Your task to perform on an android device: turn on notifications settings in the gmail app Image 0: 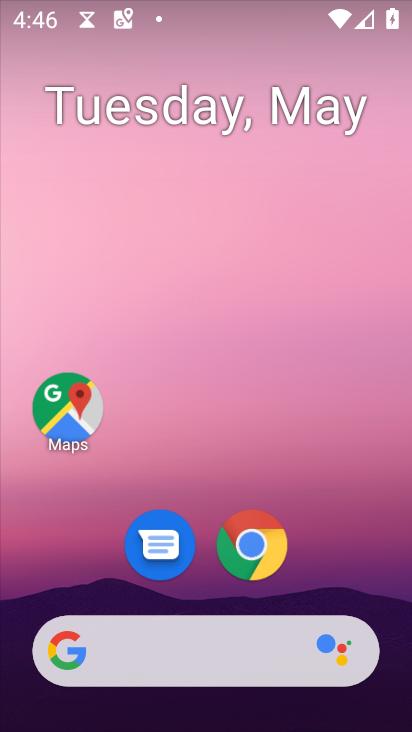
Step 0: drag from (324, 560) to (326, 122)
Your task to perform on an android device: turn on notifications settings in the gmail app Image 1: 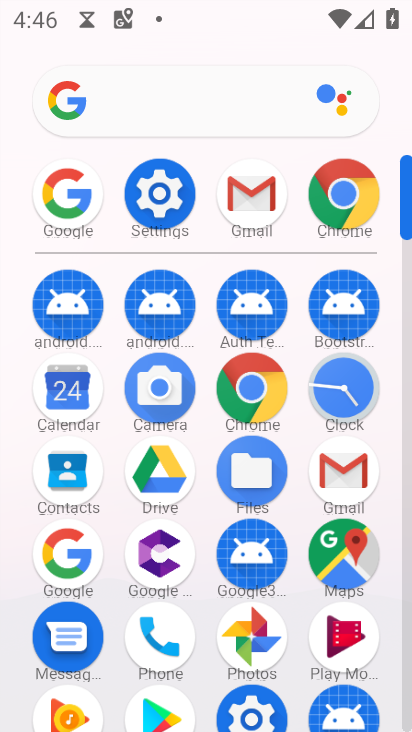
Step 1: click (251, 196)
Your task to perform on an android device: turn on notifications settings in the gmail app Image 2: 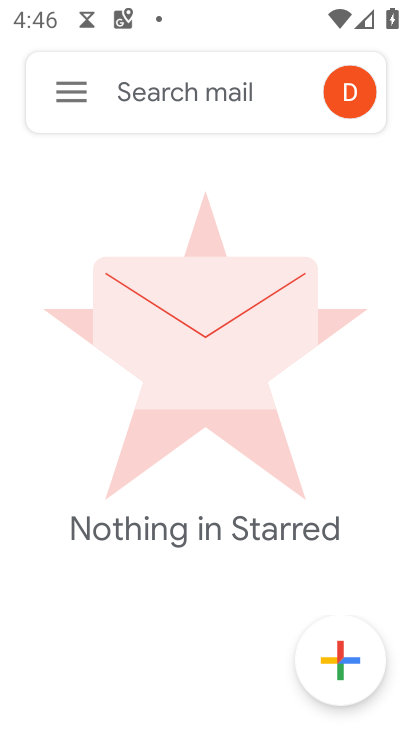
Step 2: click (73, 90)
Your task to perform on an android device: turn on notifications settings in the gmail app Image 3: 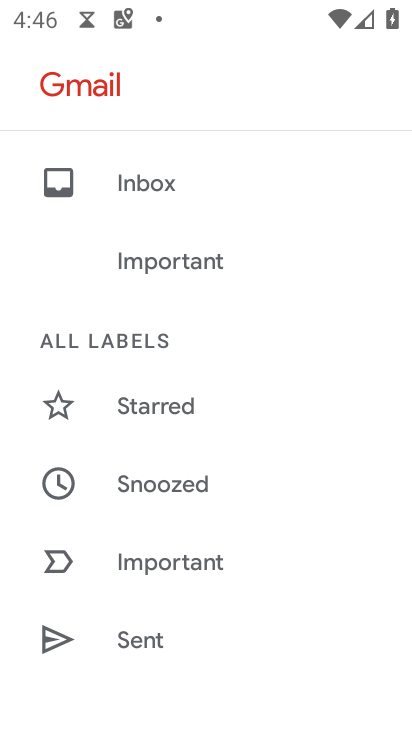
Step 3: drag from (169, 600) to (231, 448)
Your task to perform on an android device: turn on notifications settings in the gmail app Image 4: 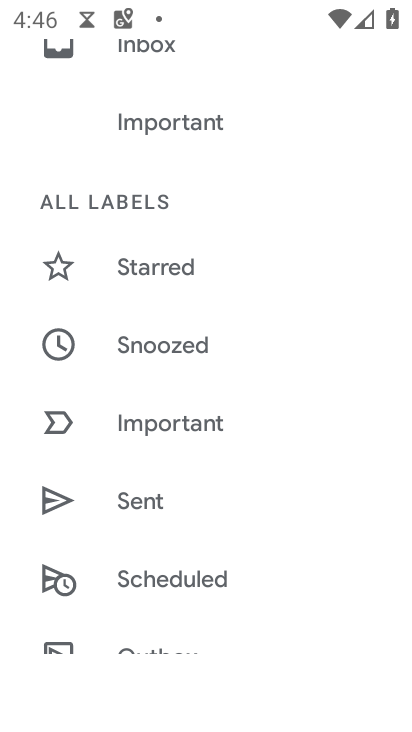
Step 4: drag from (140, 562) to (185, 445)
Your task to perform on an android device: turn on notifications settings in the gmail app Image 5: 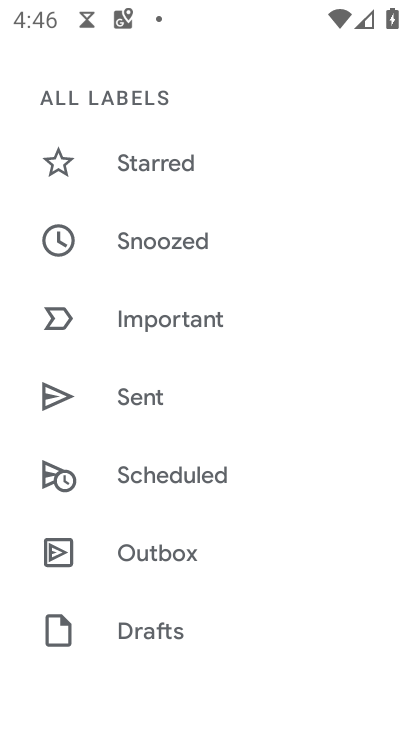
Step 5: drag from (155, 507) to (199, 406)
Your task to perform on an android device: turn on notifications settings in the gmail app Image 6: 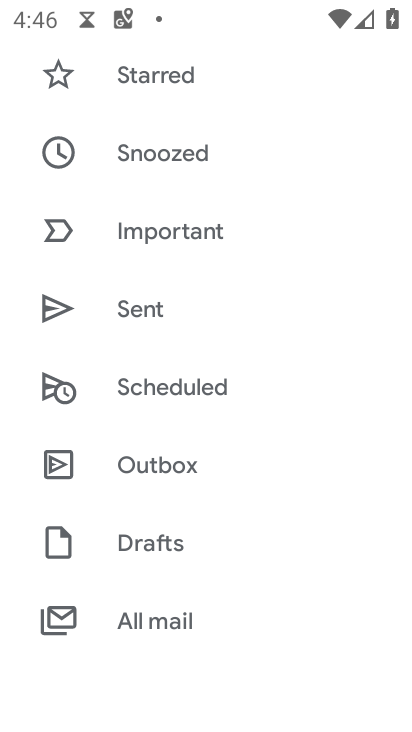
Step 6: drag from (135, 514) to (205, 408)
Your task to perform on an android device: turn on notifications settings in the gmail app Image 7: 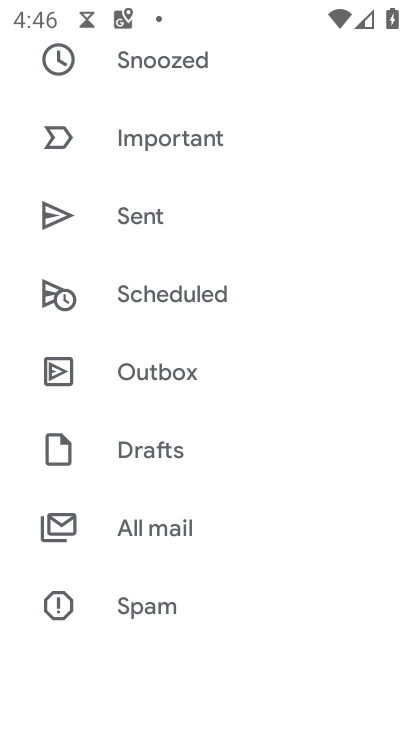
Step 7: drag from (135, 505) to (220, 393)
Your task to perform on an android device: turn on notifications settings in the gmail app Image 8: 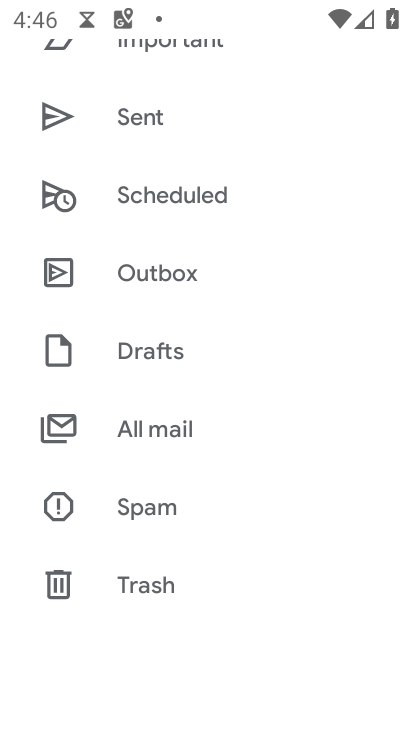
Step 8: drag from (140, 556) to (230, 420)
Your task to perform on an android device: turn on notifications settings in the gmail app Image 9: 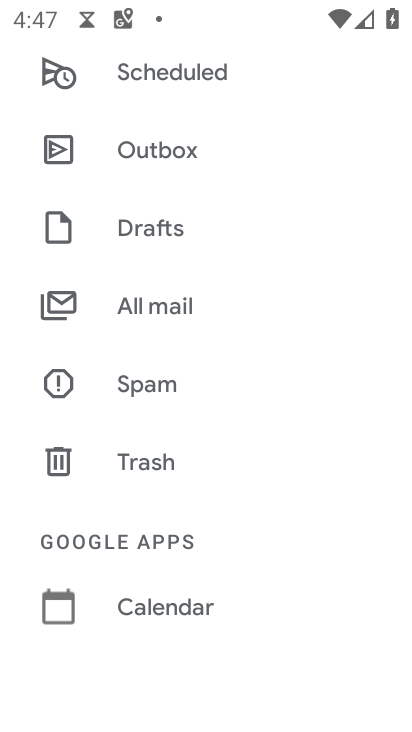
Step 9: drag from (149, 571) to (221, 451)
Your task to perform on an android device: turn on notifications settings in the gmail app Image 10: 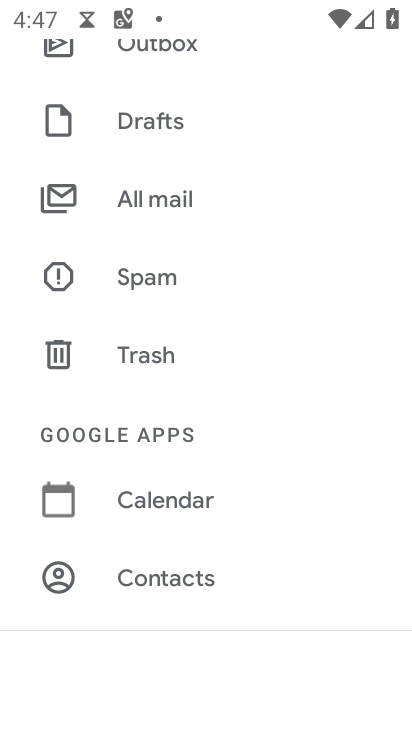
Step 10: drag from (144, 547) to (229, 425)
Your task to perform on an android device: turn on notifications settings in the gmail app Image 11: 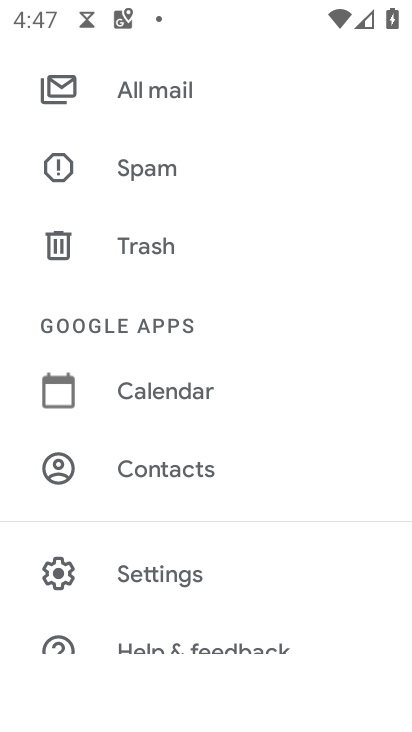
Step 11: click (161, 572)
Your task to perform on an android device: turn on notifications settings in the gmail app Image 12: 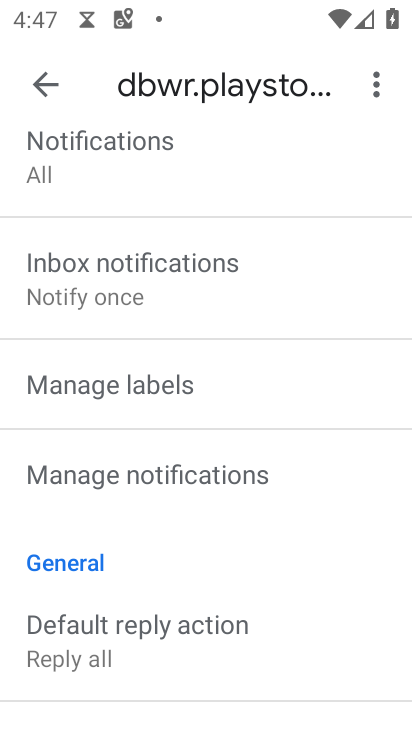
Step 12: click (174, 485)
Your task to perform on an android device: turn on notifications settings in the gmail app Image 13: 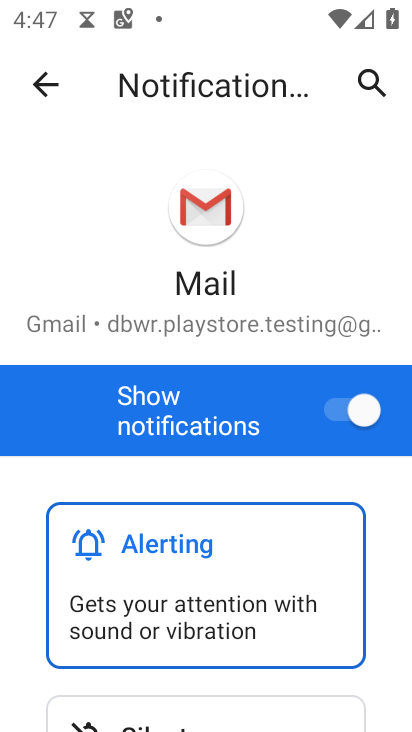
Step 13: task complete